Your task to perform on an android device: empty trash in google photos Image 0: 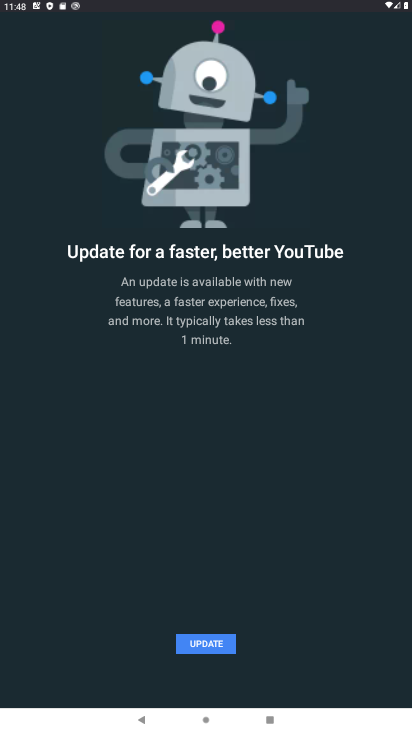
Step 0: press home button
Your task to perform on an android device: empty trash in google photos Image 1: 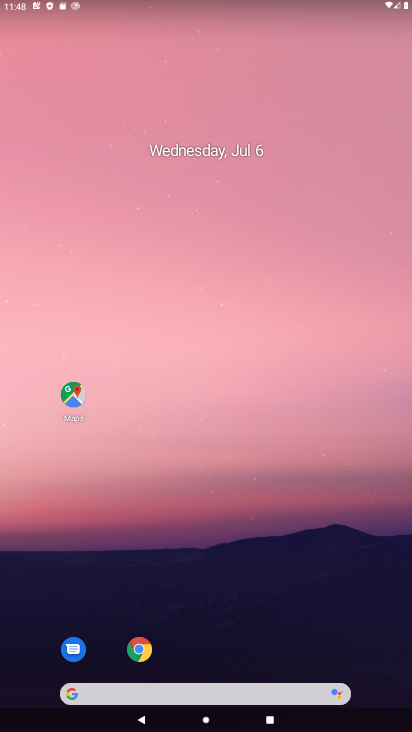
Step 1: drag from (31, 675) to (411, 79)
Your task to perform on an android device: empty trash in google photos Image 2: 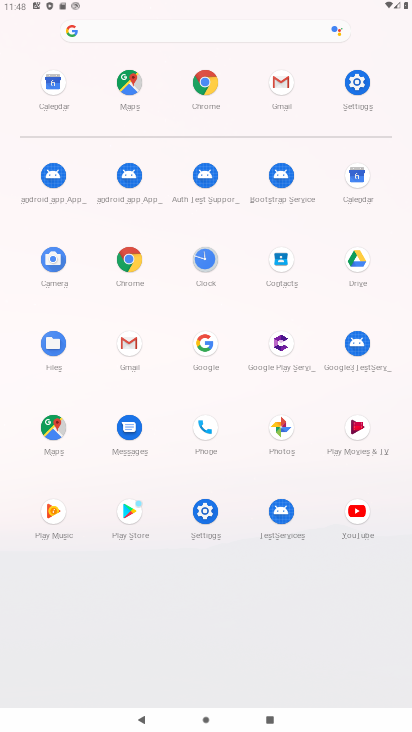
Step 2: click (275, 432)
Your task to perform on an android device: empty trash in google photos Image 3: 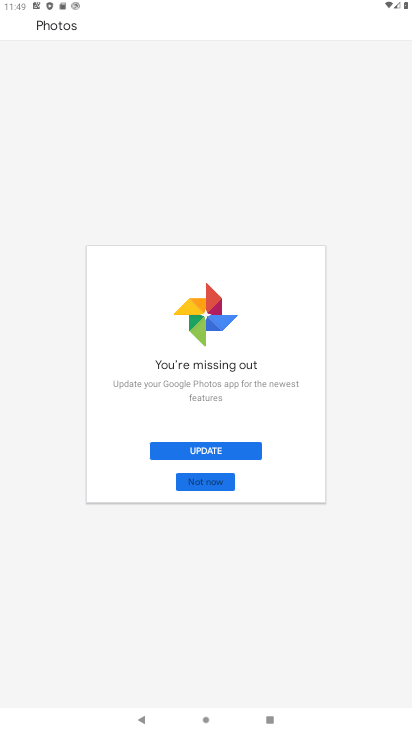
Step 3: click (218, 483)
Your task to perform on an android device: empty trash in google photos Image 4: 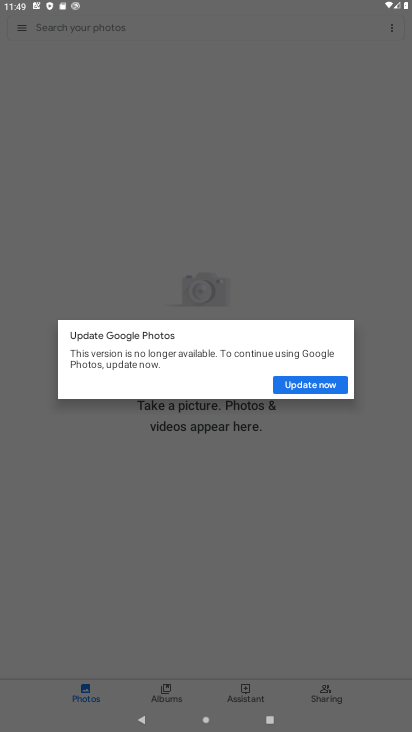
Step 4: click (307, 386)
Your task to perform on an android device: empty trash in google photos Image 5: 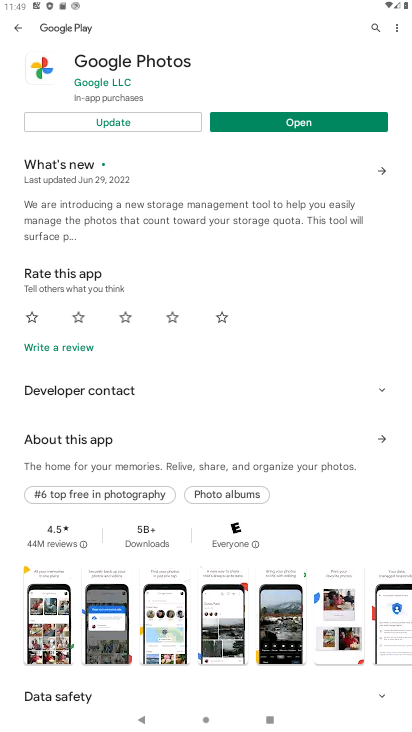
Step 5: click (235, 116)
Your task to perform on an android device: empty trash in google photos Image 6: 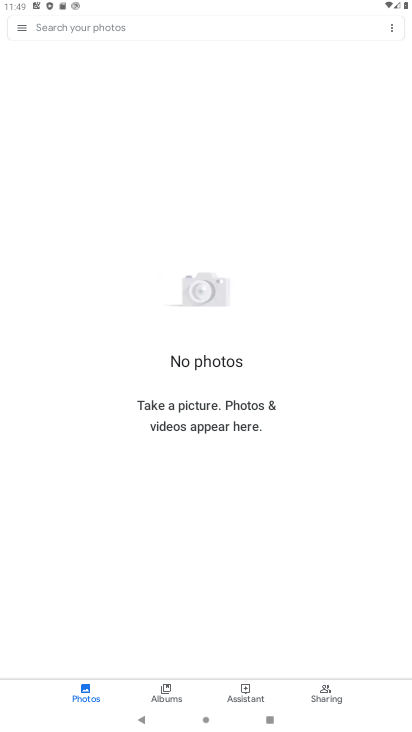
Step 6: click (19, 28)
Your task to perform on an android device: empty trash in google photos Image 7: 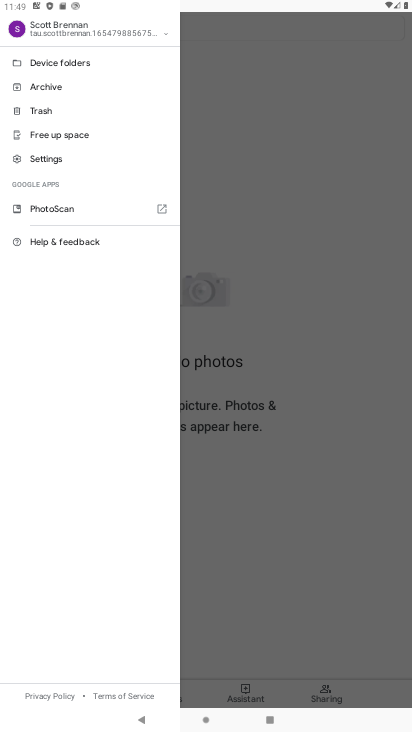
Step 7: click (54, 110)
Your task to perform on an android device: empty trash in google photos Image 8: 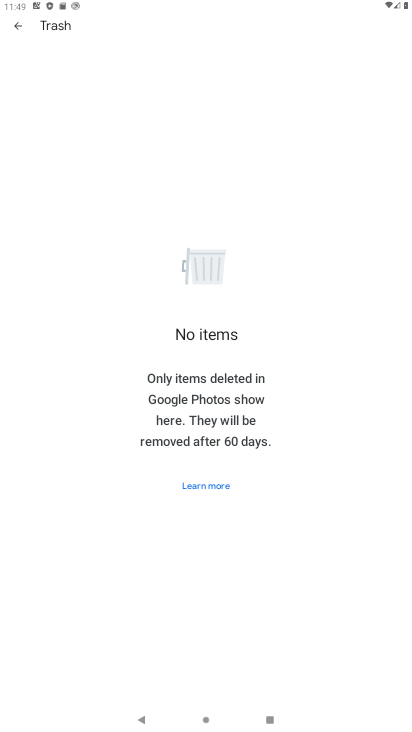
Step 8: task complete